Your task to perform on an android device: set default search engine in the chrome app Image 0: 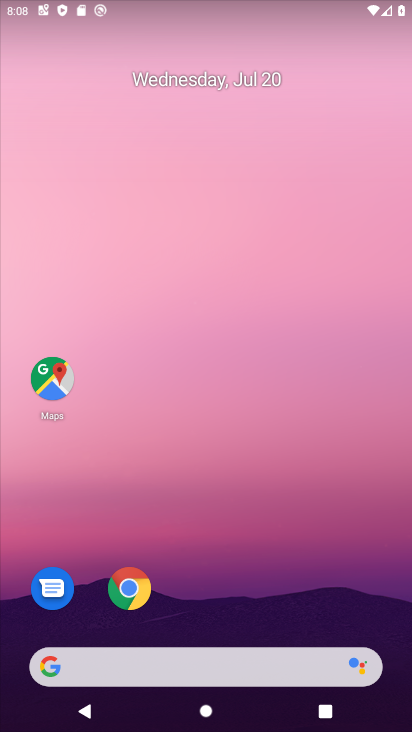
Step 0: click (129, 600)
Your task to perform on an android device: set default search engine in the chrome app Image 1: 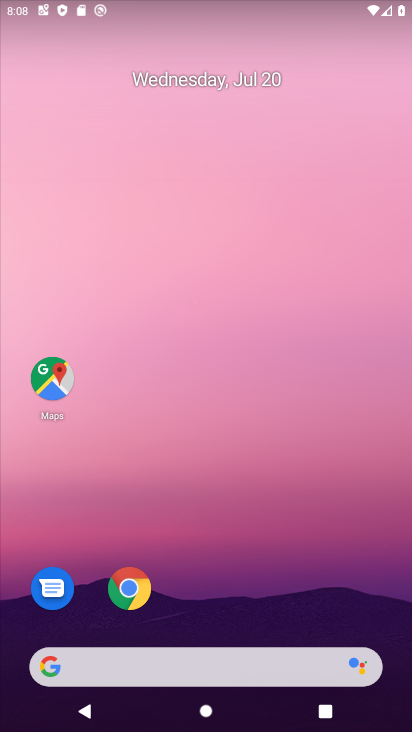
Step 1: click (129, 600)
Your task to perform on an android device: set default search engine in the chrome app Image 2: 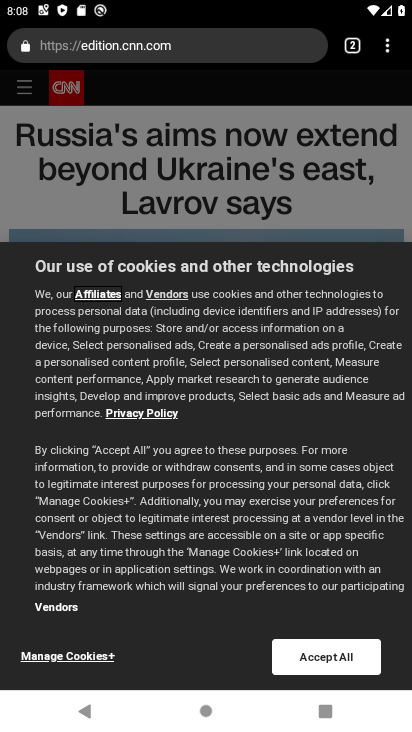
Step 2: click (387, 41)
Your task to perform on an android device: set default search engine in the chrome app Image 3: 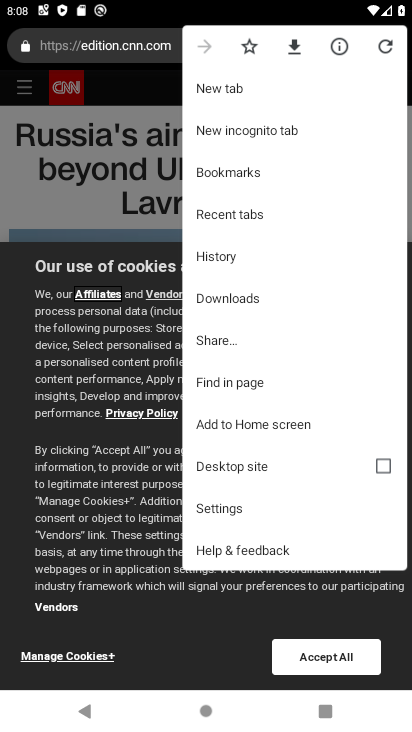
Step 3: click (253, 494)
Your task to perform on an android device: set default search engine in the chrome app Image 4: 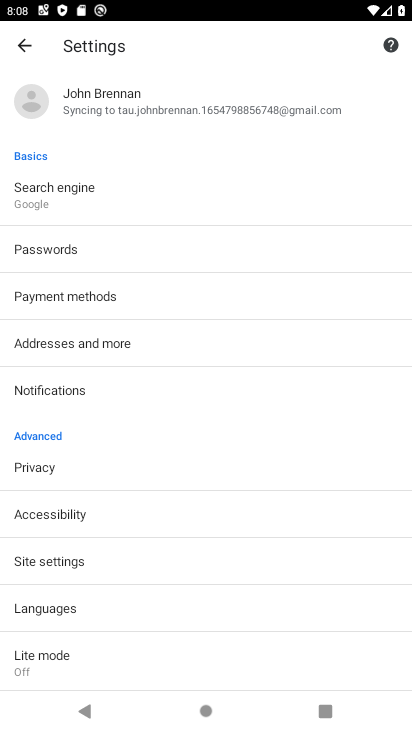
Step 4: click (62, 198)
Your task to perform on an android device: set default search engine in the chrome app Image 5: 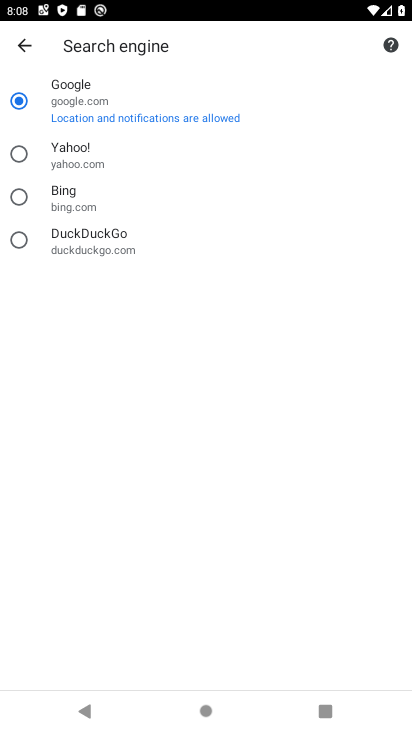
Step 5: task complete